Your task to perform on an android device: Do I have any events tomorrow? Image 0: 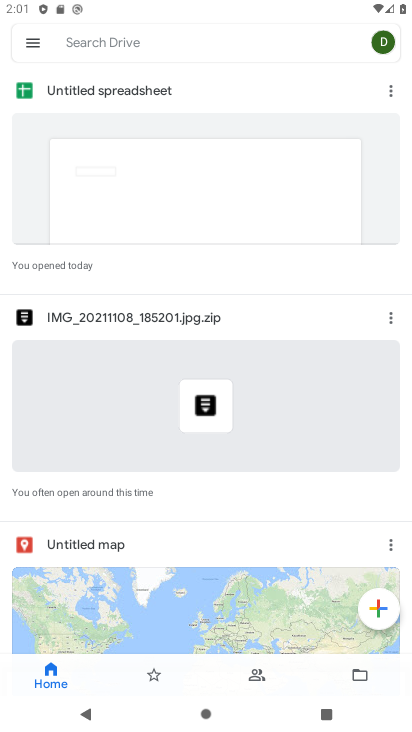
Step 0: press home button
Your task to perform on an android device: Do I have any events tomorrow? Image 1: 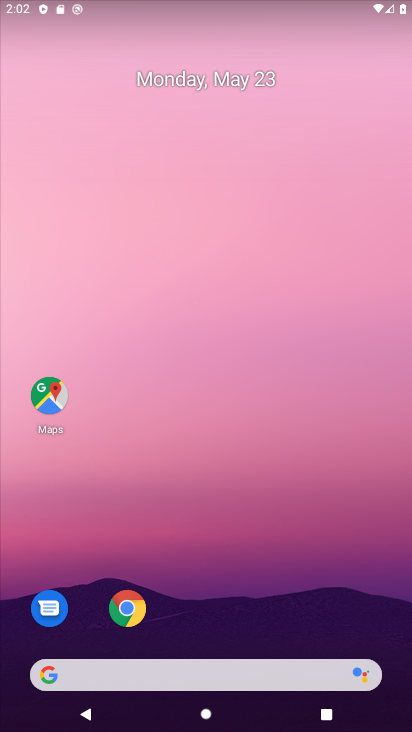
Step 1: drag from (205, 658) to (153, 25)
Your task to perform on an android device: Do I have any events tomorrow? Image 2: 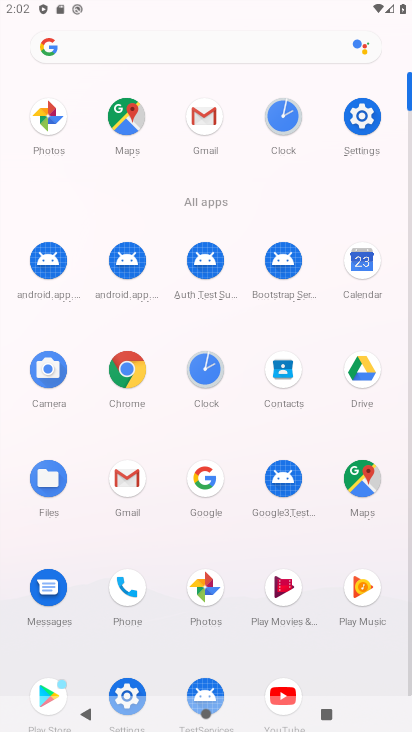
Step 2: click (365, 254)
Your task to perform on an android device: Do I have any events tomorrow? Image 3: 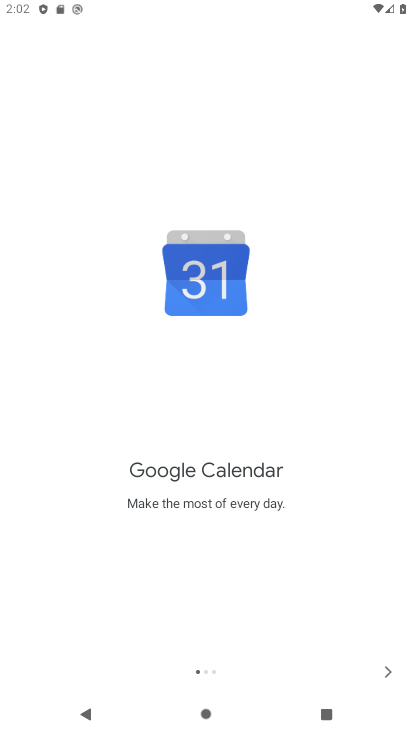
Step 3: click (388, 672)
Your task to perform on an android device: Do I have any events tomorrow? Image 4: 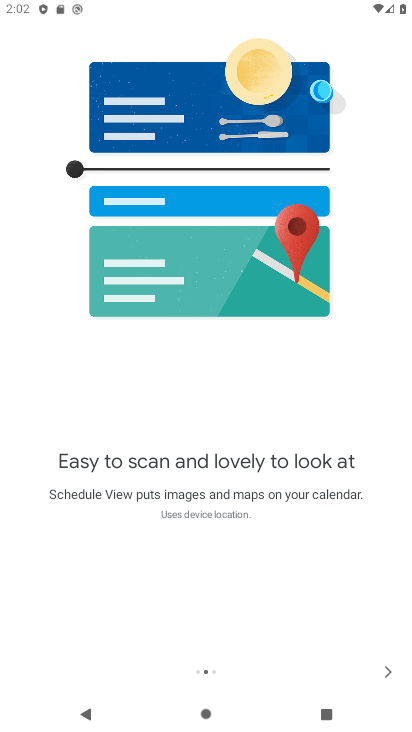
Step 4: click (388, 672)
Your task to perform on an android device: Do I have any events tomorrow? Image 5: 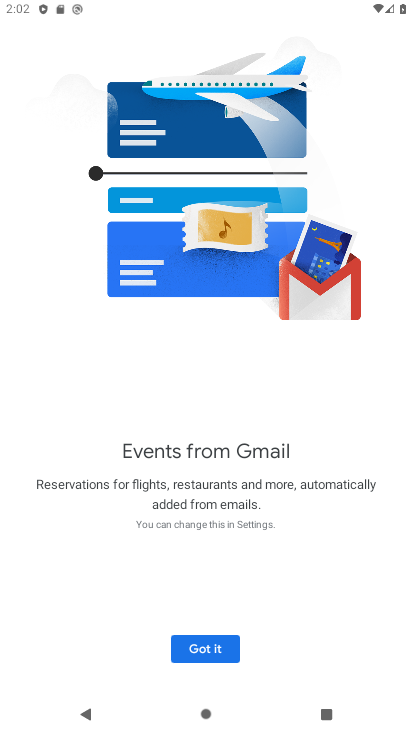
Step 5: click (241, 647)
Your task to perform on an android device: Do I have any events tomorrow? Image 6: 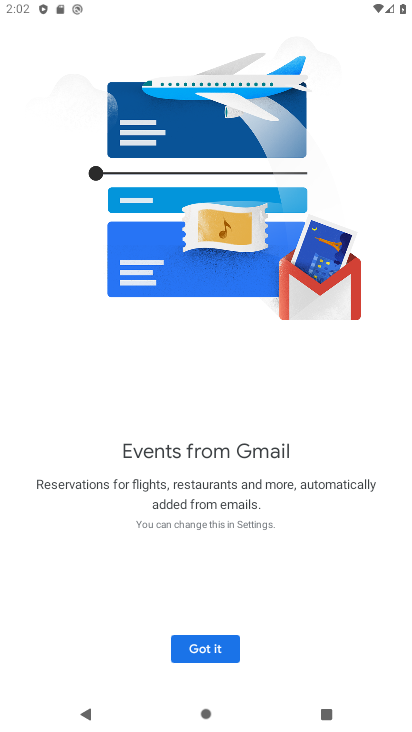
Step 6: click (214, 666)
Your task to perform on an android device: Do I have any events tomorrow? Image 7: 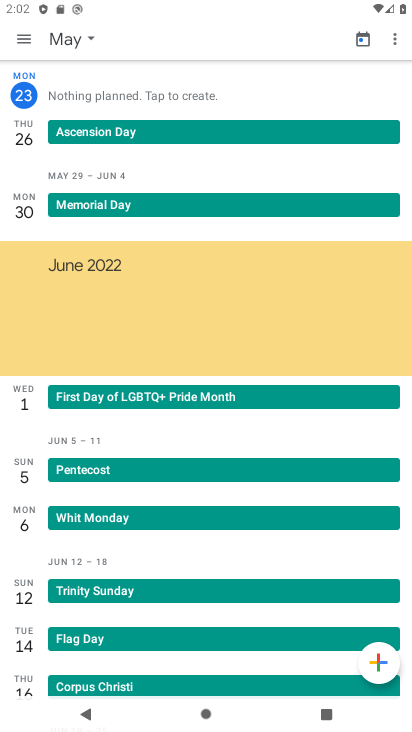
Step 7: drag from (17, 130) to (44, 577)
Your task to perform on an android device: Do I have any events tomorrow? Image 8: 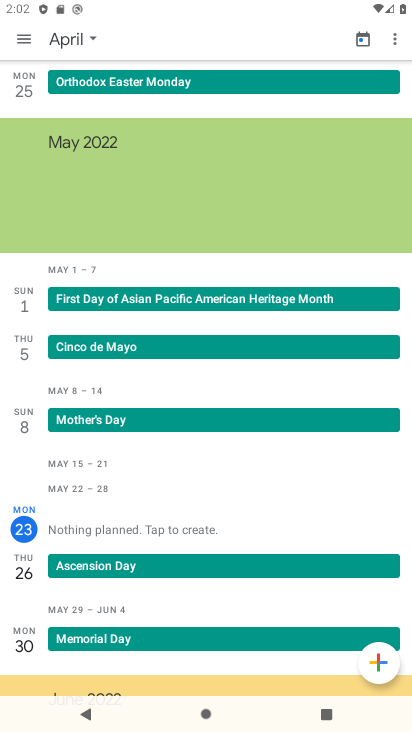
Step 8: click (360, 38)
Your task to perform on an android device: Do I have any events tomorrow? Image 9: 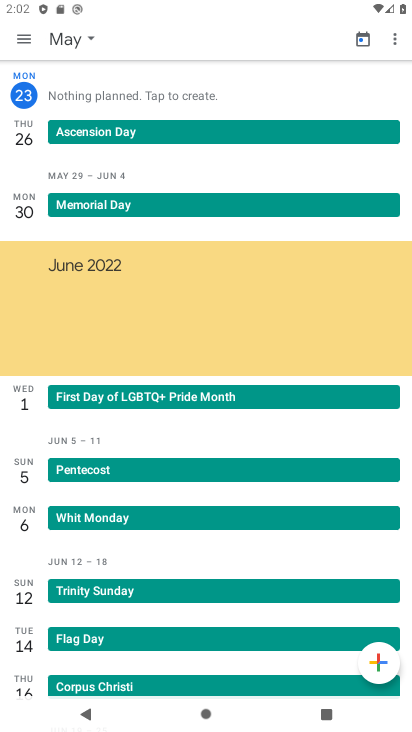
Step 9: click (19, 37)
Your task to perform on an android device: Do I have any events tomorrow? Image 10: 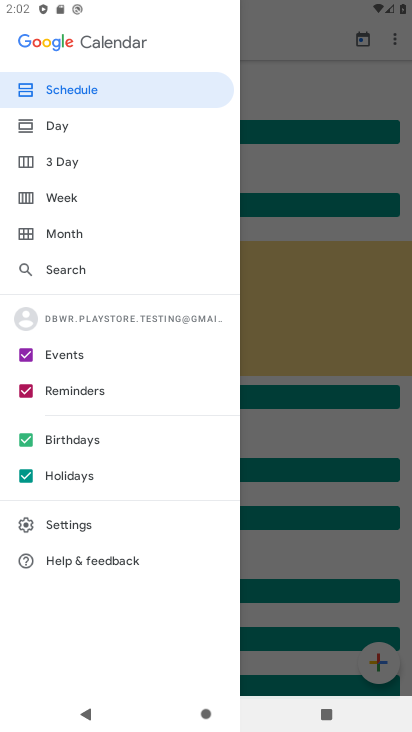
Step 10: click (53, 114)
Your task to perform on an android device: Do I have any events tomorrow? Image 11: 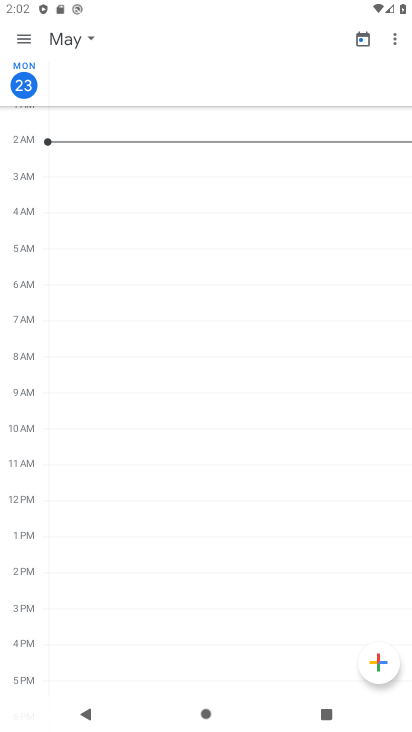
Step 11: click (9, 34)
Your task to perform on an android device: Do I have any events tomorrow? Image 12: 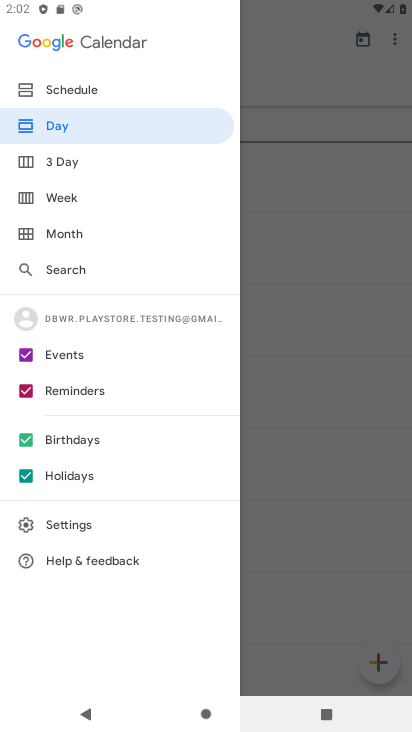
Step 12: click (76, 191)
Your task to perform on an android device: Do I have any events tomorrow? Image 13: 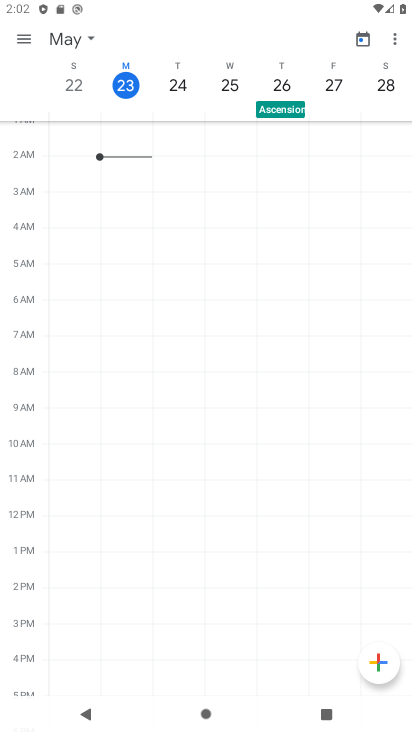
Step 13: click (176, 81)
Your task to perform on an android device: Do I have any events tomorrow? Image 14: 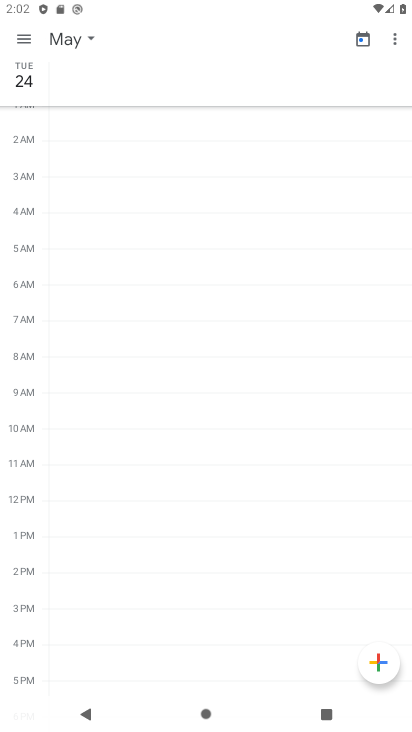
Step 14: task complete